Your task to perform on an android device: empty trash in google photos Image 0: 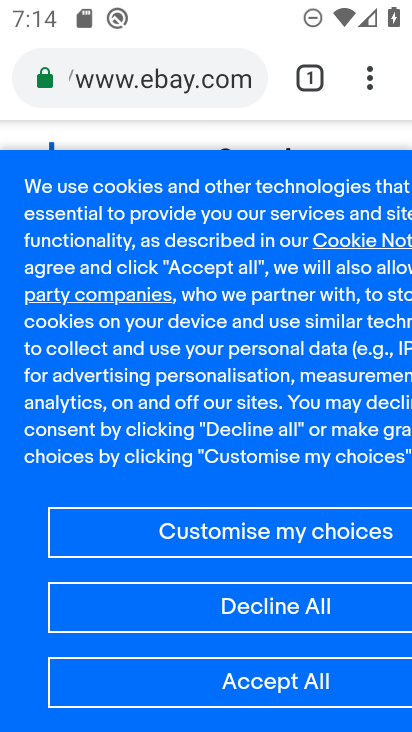
Step 0: press home button
Your task to perform on an android device: empty trash in google photos Image 1: 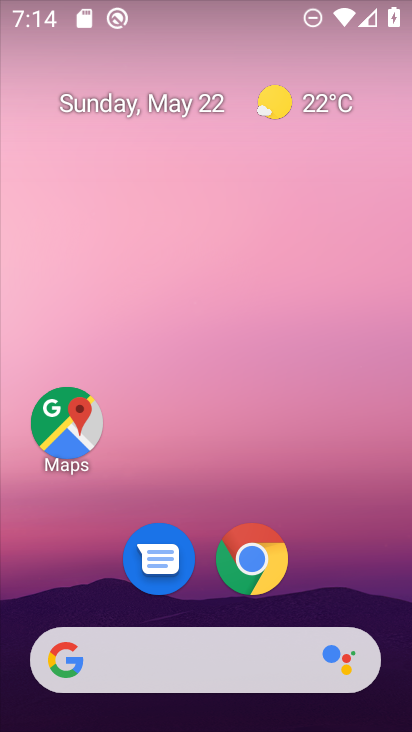
Step 1: drag from (305, 682) to (176, 136)
Your task to perform on an android device: empty trash in google photos Image 2: 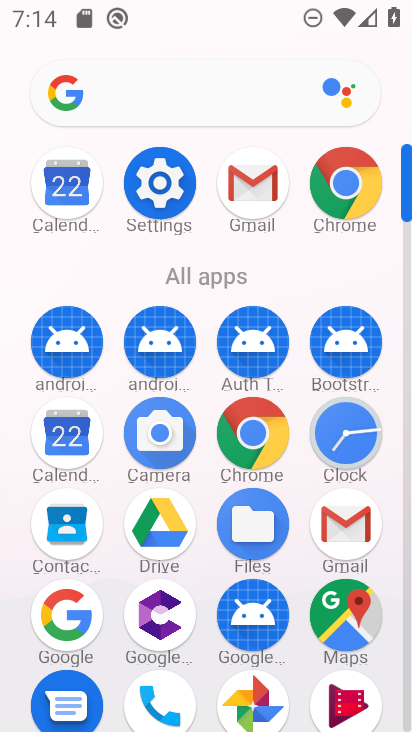
Step 2: click (259, 685)
Your task to perform on an android device: empty trash in google photos Image 3: 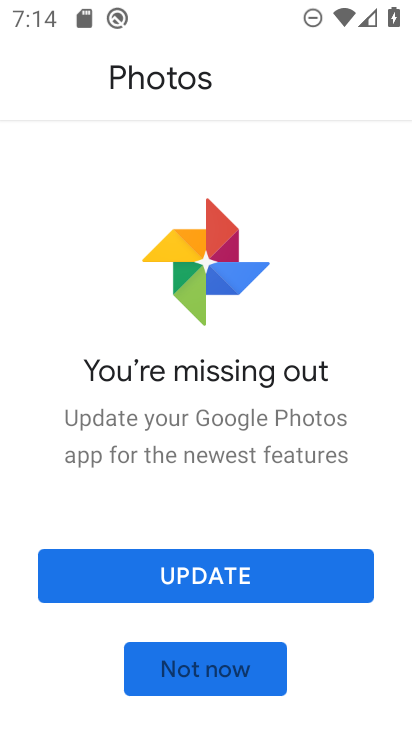
Step 3: click (175, 565)
Your task to perform on an android device: empty trash in google photos Image 4: 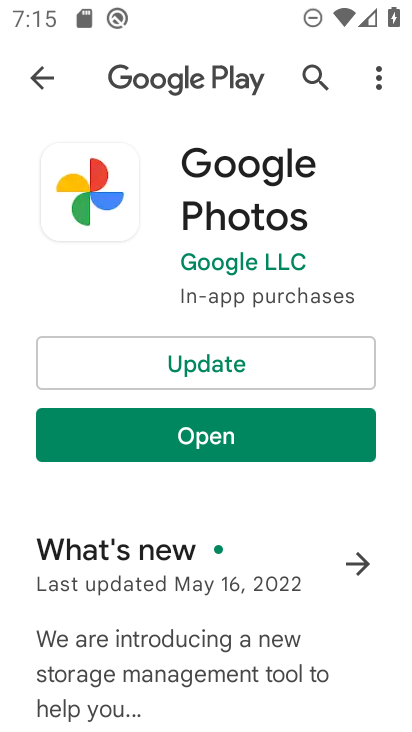
Step 4: click (207, 359)
Your task to perform on an android device: empty trash in google photos Image 5: 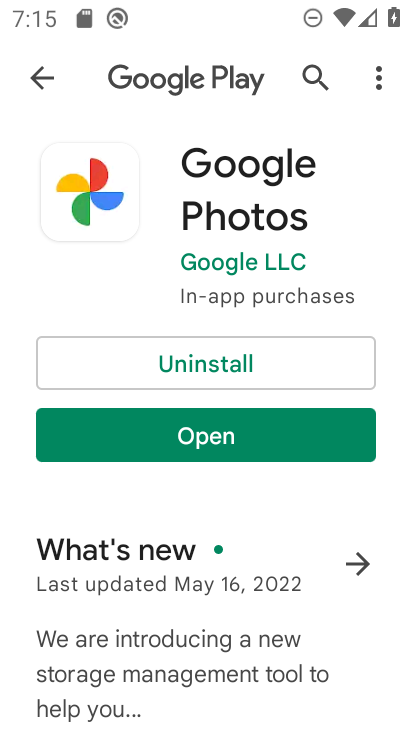
Step 5: click (180, 438)
Your task to perform on an android device: empty trash in google photos Image 6: 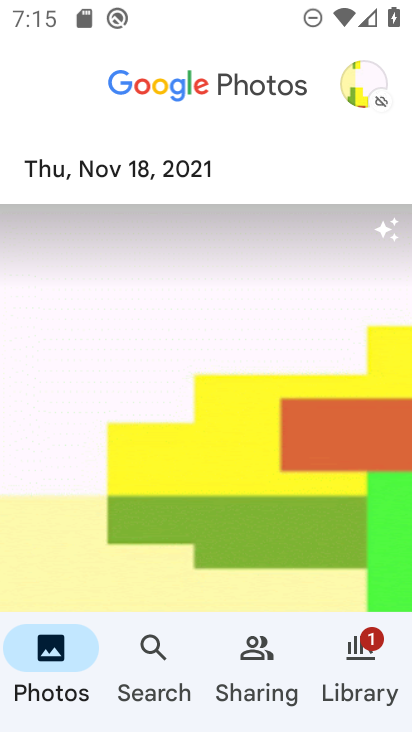
Step 6: click (156, 645)
Your task to perform on an android device: empty trash in google photos Image 7: 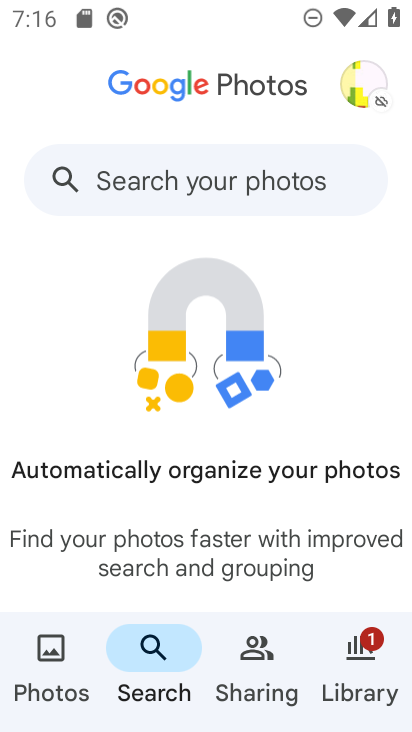
Step 7: click (148, 180)
Your task to perform on an android device: empty trash in google photos Image 8: 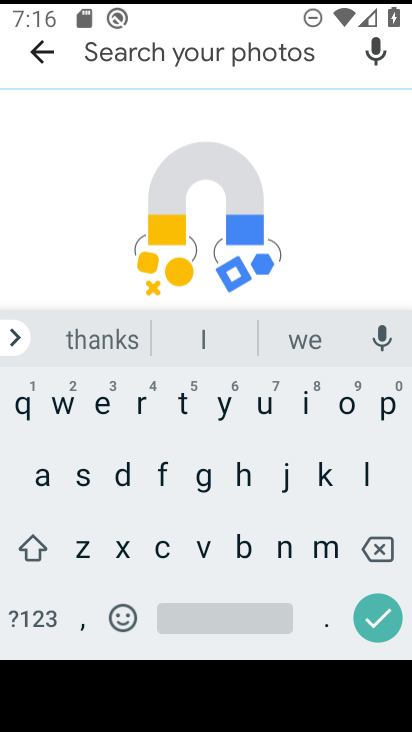
Step 8: click (170, 406)
Your task to perform on an android device: empty trash in google photos Image 9: 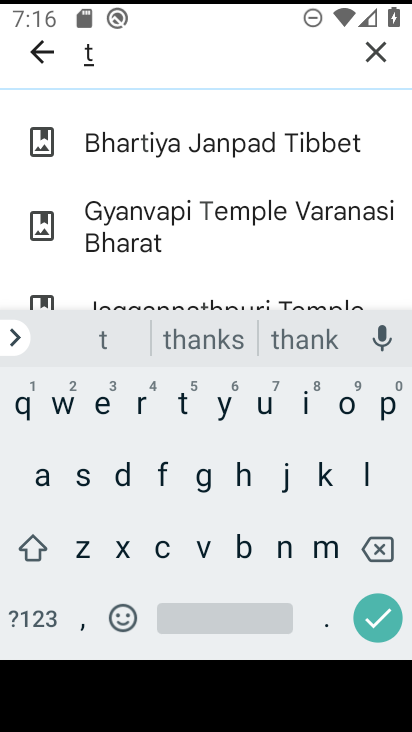
Step 9: click (139, 412)
Your task to perform on an android device: empty trash in google photos Image 10: 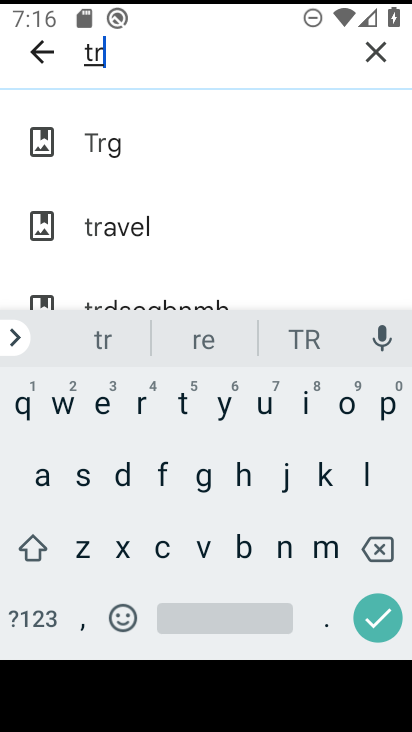
Step 10: click (39, 478)
Your task to perform on an android device: empty trash in google photos Image 11: 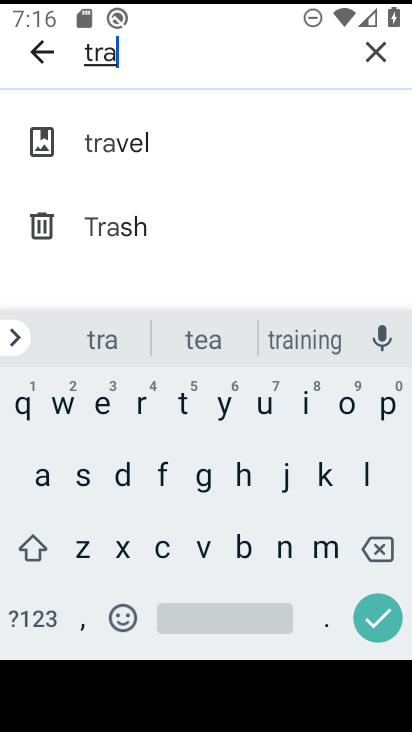
Step 11: click (145, 235)
Your task to perform on an android device: empty trash in google photos Image 12: 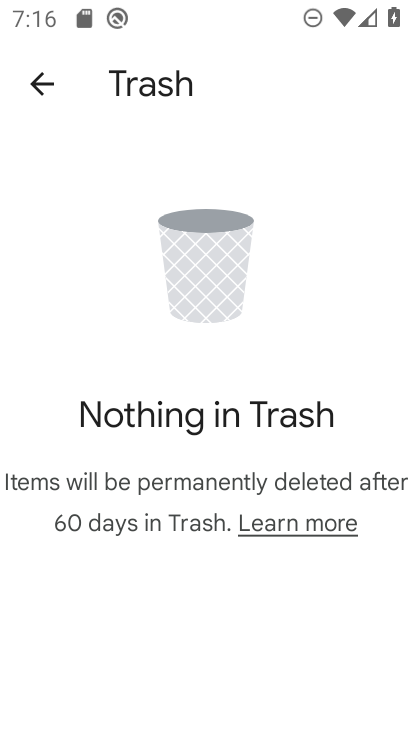
Step 12: task complete